Your task to perform on an android device: change notification settings in the gmail app Image 0: 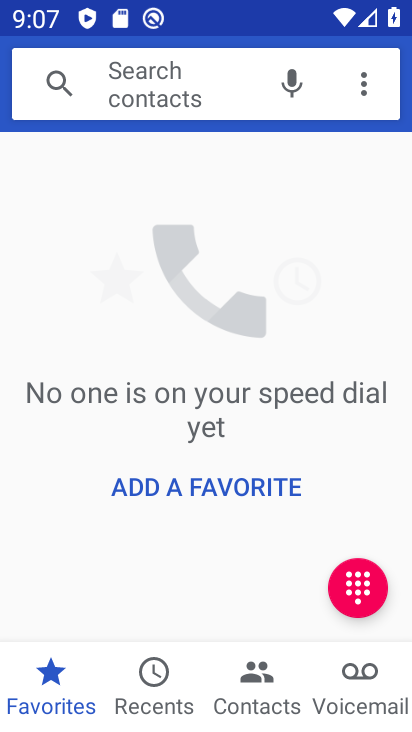
Step 0: press home button
Your task to perform on an android device: change notification settings in the gmail app Image 1: 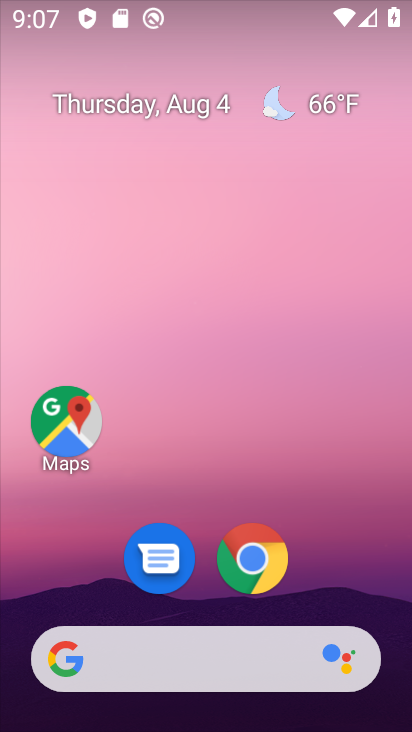
Step 1: drag from (351, 546) to (385, 129)
Your task to perform on an android device: change notification settings in the gmail app Image 2: 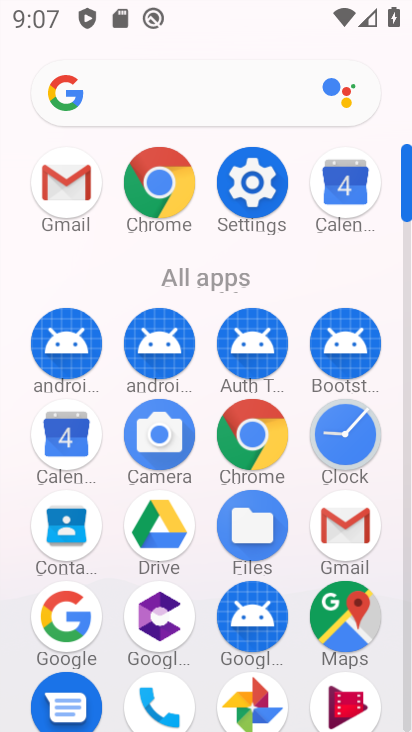
Step 2: click (338, 533)
Your task to perform on an android device: change notification settings in the gmail app Image 3: 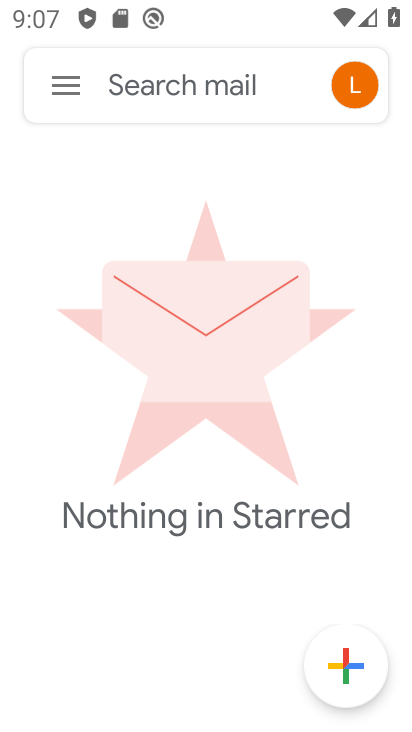
Step 3: click (58, 75)
Your task to perform on an android device: change notification settings in the gmail app Image 4: 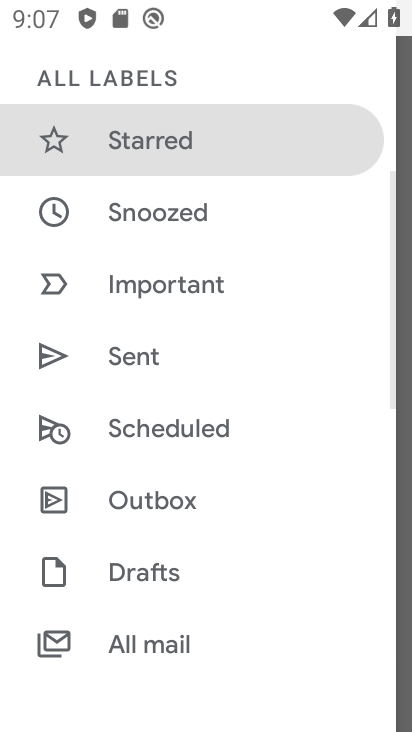
Step 4: drag from (131, 610) to (254, 91)
Your task to perform on an android device: change notification settings in the gmail app Image 5: 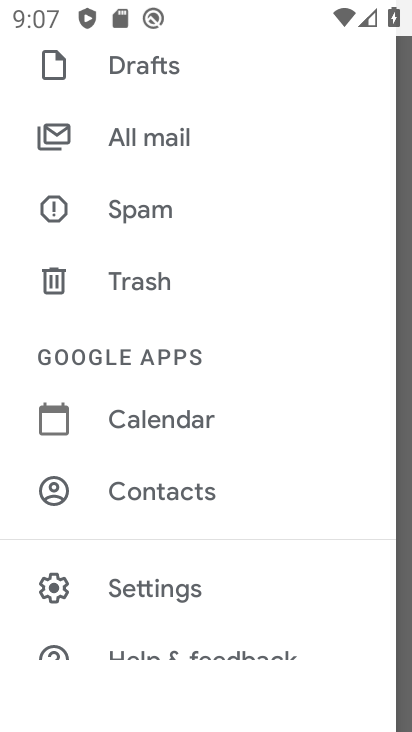
Step 5: click (137, 576)
Your task to perform on an android device: change notification settings in the gmail app Image 6: 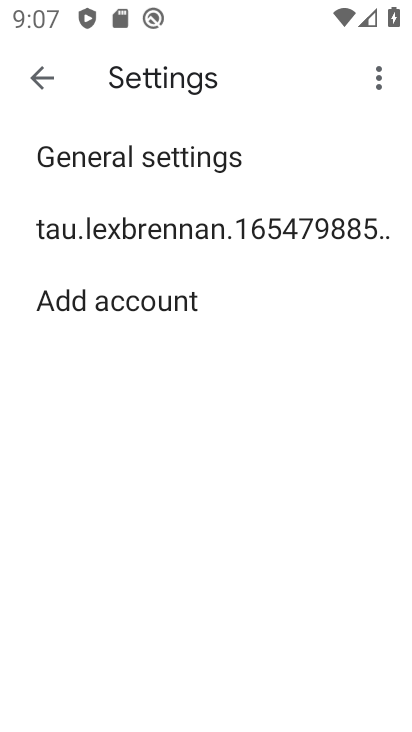
Step 6: click (154, 226)
Your task to perform on an android device: change notification settings in the gmail app Image 7: 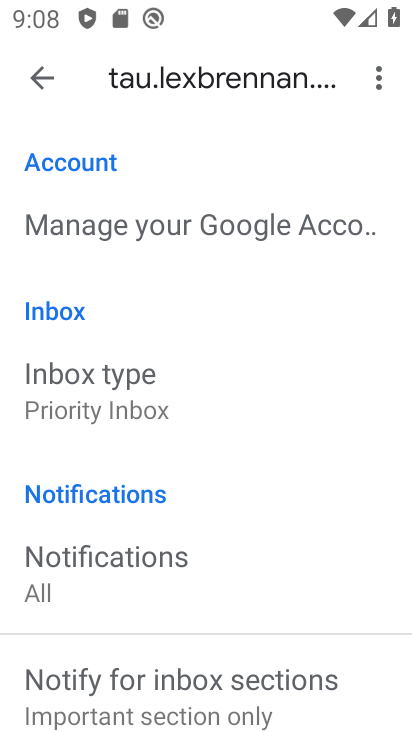
Step 7: drag from (237, 522) to (313, 128)
Your task to perform on an android device: change notification settings in the gmail app Image 8: 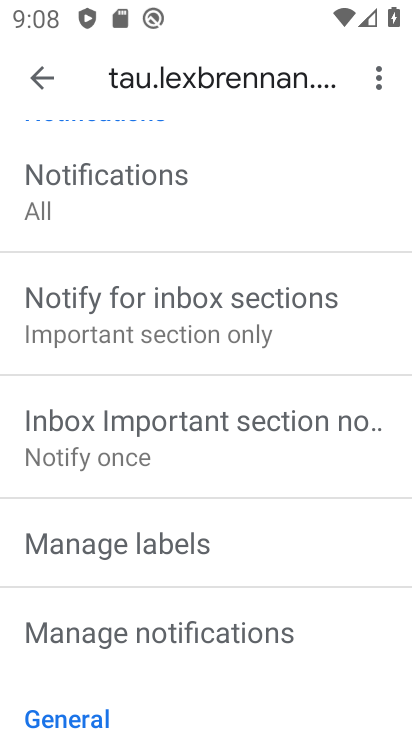
Step 8: click (213, 632)
Your task to perform on an android device: change notification settings in the gmail app Image 9: 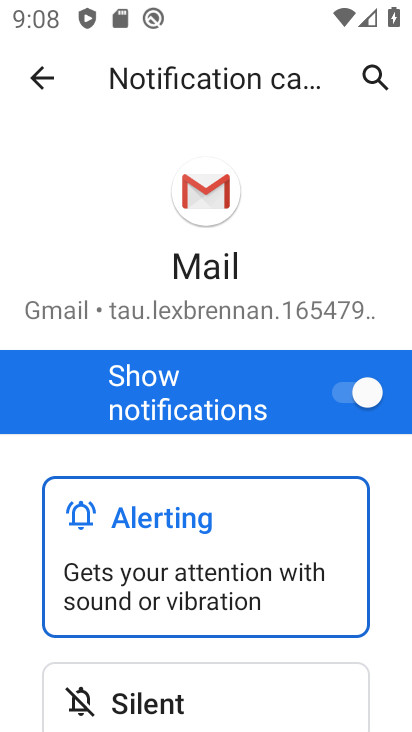
Step 9: click (246, 681)
Your task to perform on an android device: change notification settings in the gmail app Image 10: 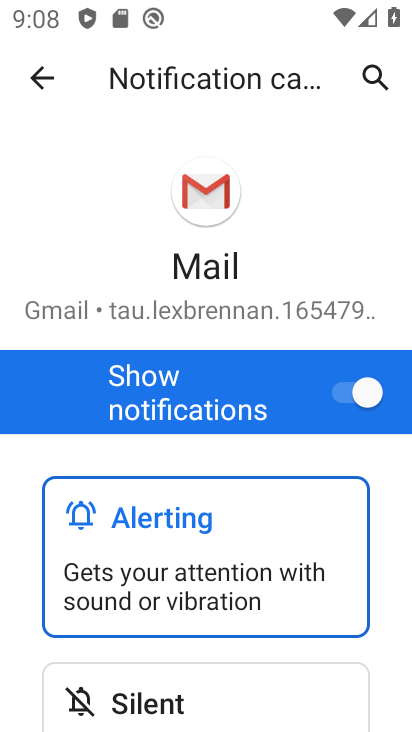
Step 10: click (357, 387)
Your task to perform on an android device: change notification settings in the gmail app Image 11: 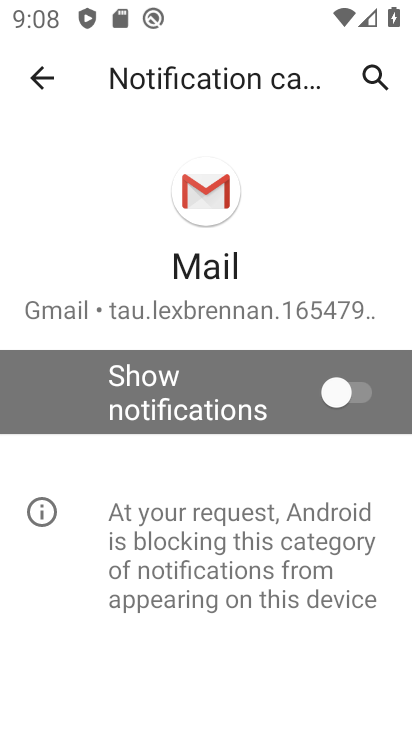
Step 11: task complete